Your task to perform on an android device: Go to Google Image 0: 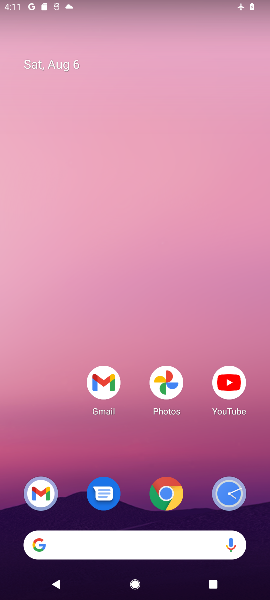
Step 0: drag from (234, 556) to (241, 155)
Your task to perform on an android device: Go to Google Image 1: 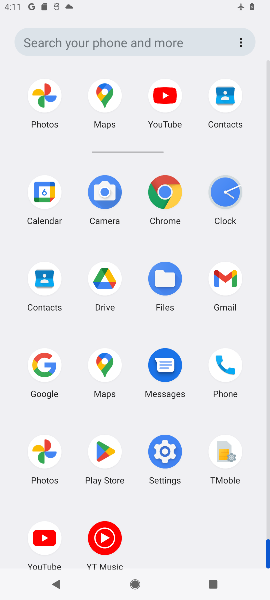
Step 1: click (42, 361)
Your task to perform on an android device: Go to Google Image 2: 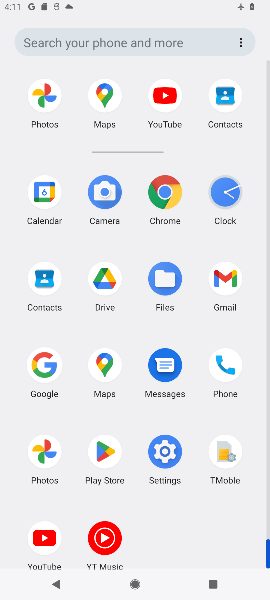
Step 2: click (44, 364)
Your task to perform on an android device: Go to Google Image 3: 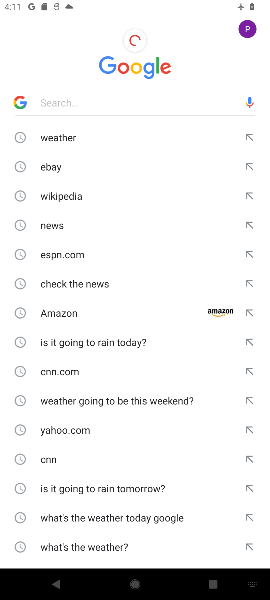
Step 3: task complete